Your task to perform on an android device: Go to location settings Image 0: 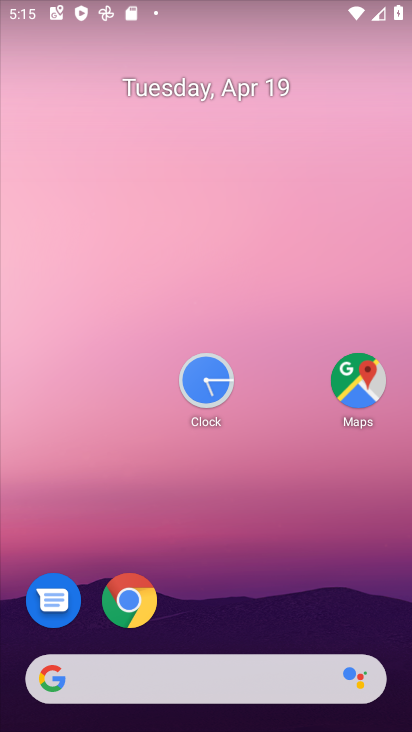
Step 0: drag from (253, 492) to (161, 163)
Your task to perform on an android device: Go to location settings Image 1: 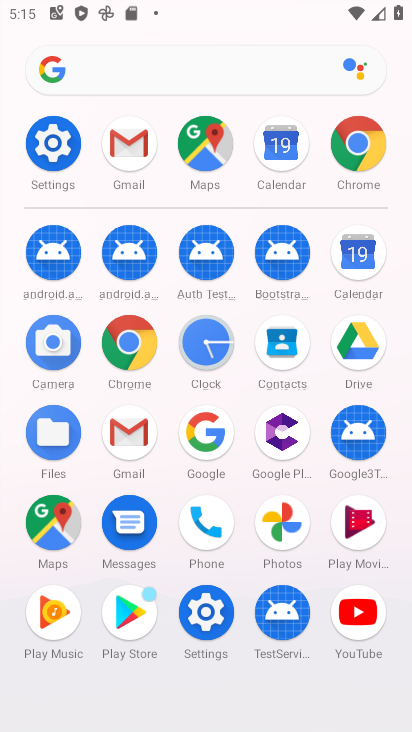
Step 1: click (42, 141)
Your task to perform on an android device: Go to location settings Image 2: 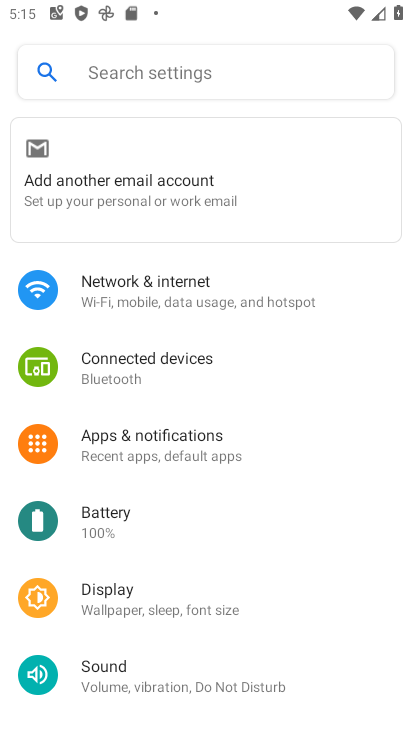
Step 2: drag from (180, 530) to (178, 243)
Your task to perform on an android device: Go to location settings Image 3: 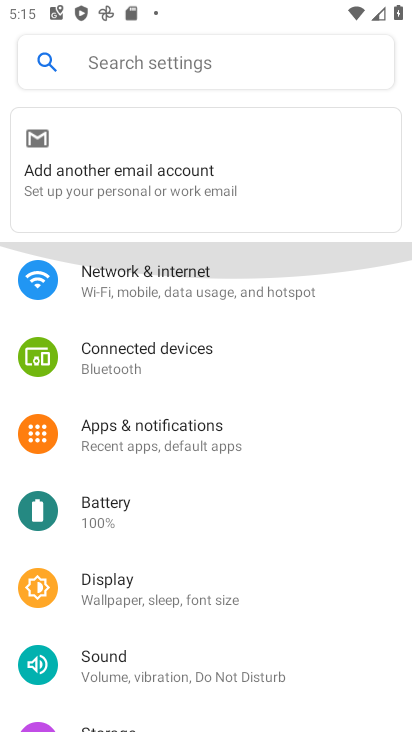
Step 3: drag from (227, 510) to (212, 261)
Your task to perform on an android device: Go to location settings Image 4: 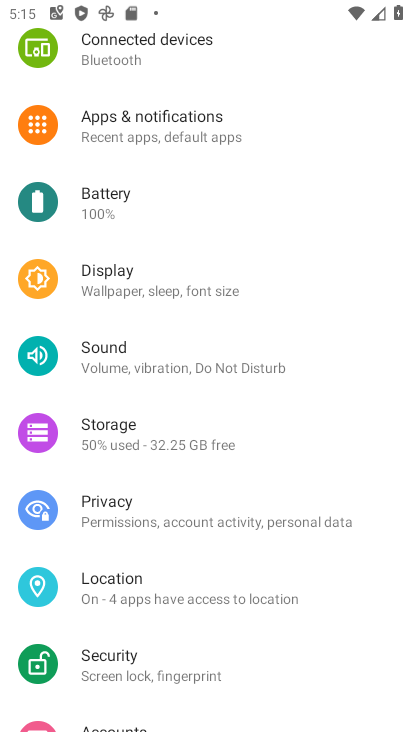
Step 4: click (150, 598)
Your task to perform on an android device: Go to location settings Image 5: 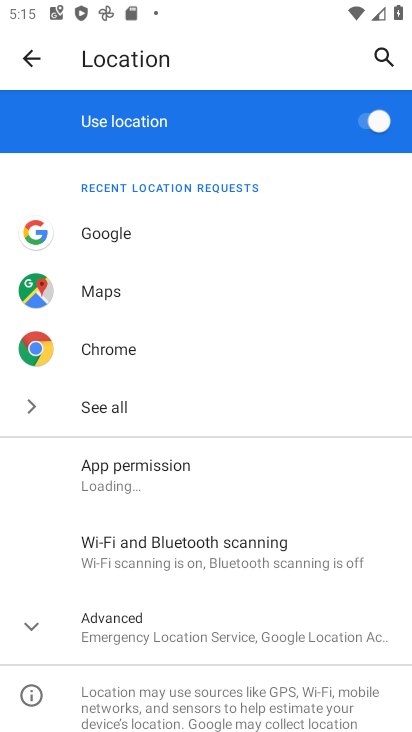
Step 5: click (383, 124)
Your task to perform on an android device: Go to location settings Image 6: 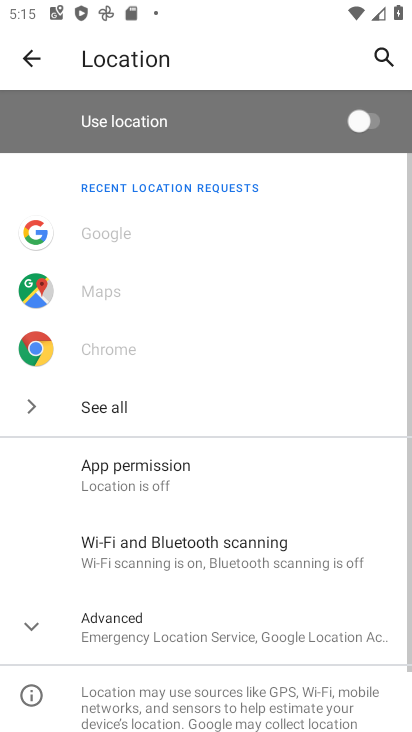
Step 6: click (383, 124)
Your task to perform on an android device: Go to location settings Image 7: 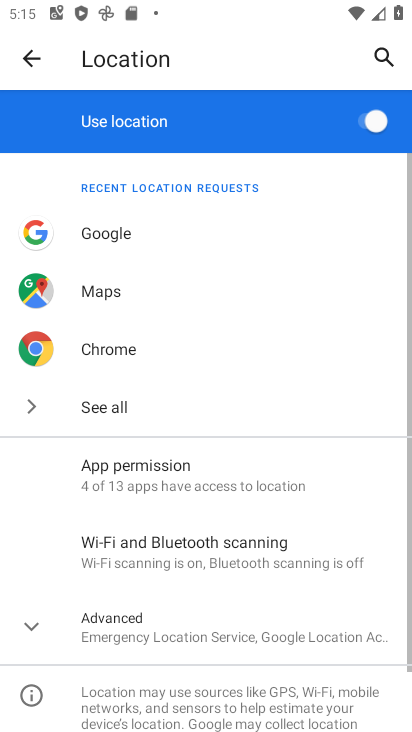
Step 7: click (352, 117)
Your task to perform on an android device: Go to location settings Image 8: 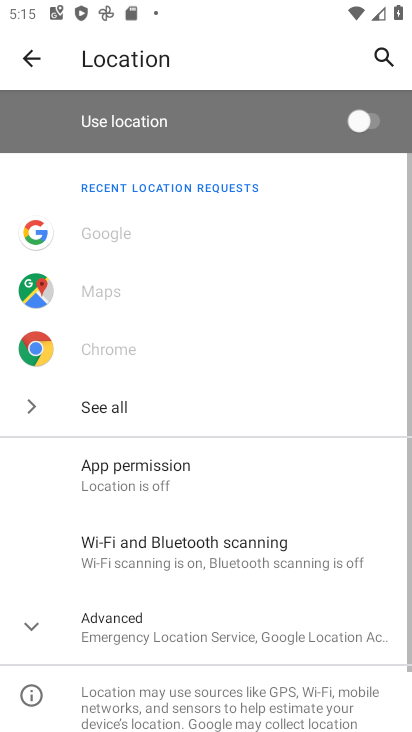
Step 8: task complete